Your task to perform on an android device: set default search engine in the chrome app Image 0: 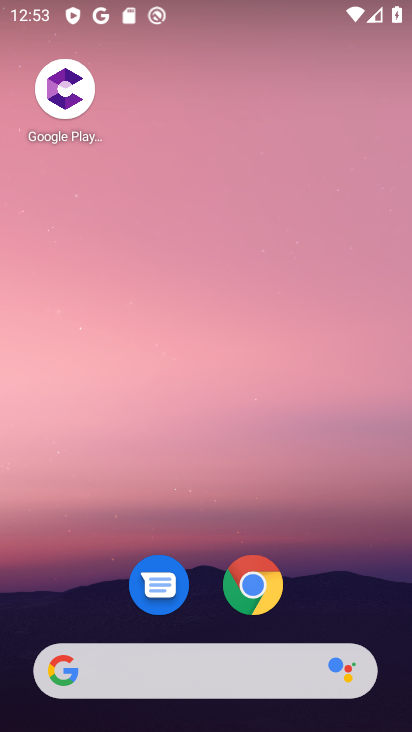
Step 0: click (254, 594)
Your task to perform on an android device: set default search engine in the chrome app Image 1: 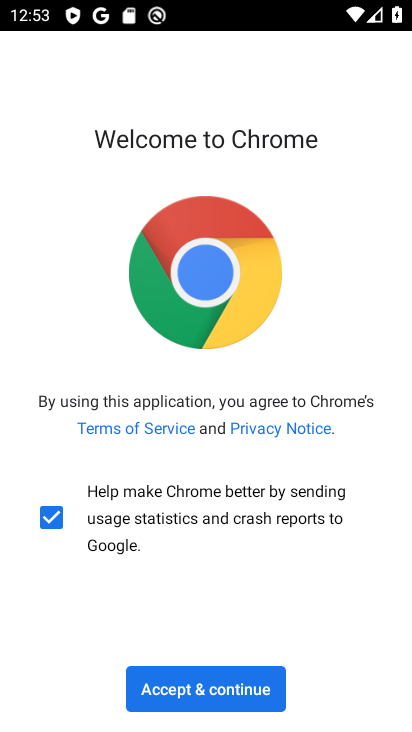
Step 1: click (181, 689)
Your task to perform on an android device: set default search engine in the chrome app Image 2: 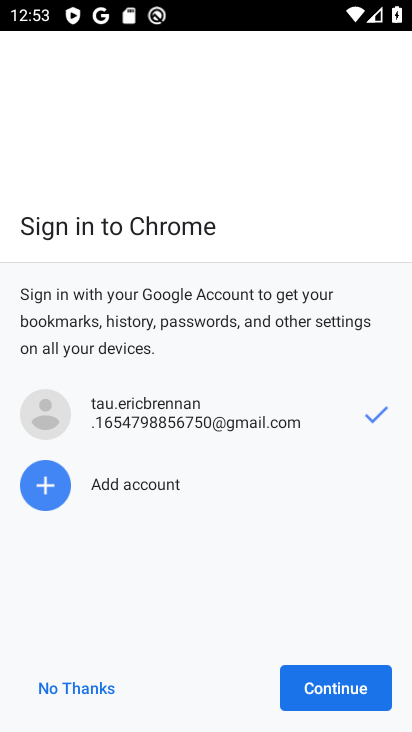
Step 2: click (310, 690)
Your task to perform on an android device: set default search engine in the chrome app Image 3: 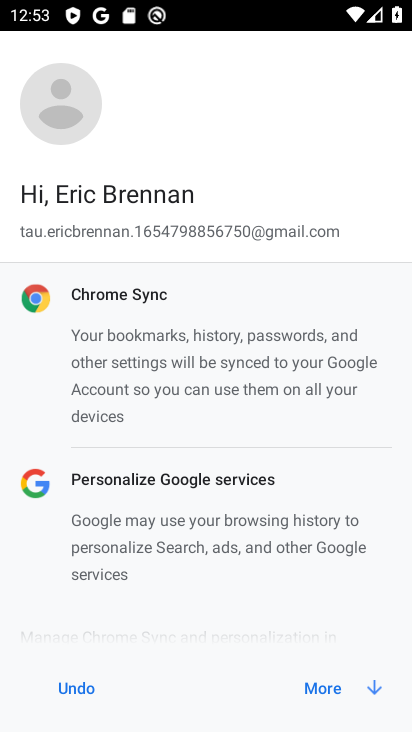
Step 3: click (315, 686)
Your task to perform on an android device: set default search engine in the chrome app Image 4: 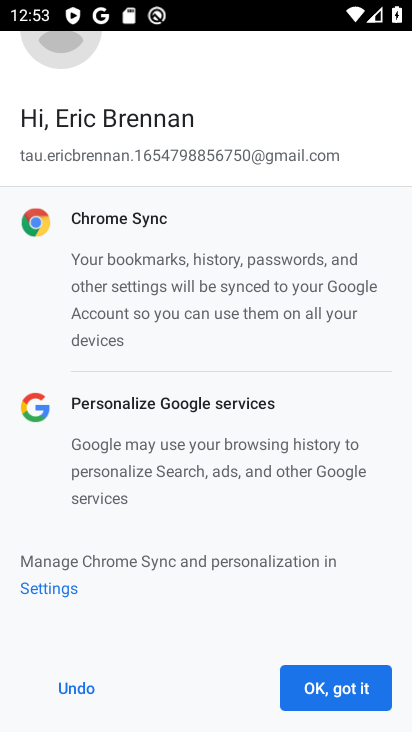
Step 4: click (343, 690)
Your task to perform on an android device: set default search engine in the chrome app Image 5: 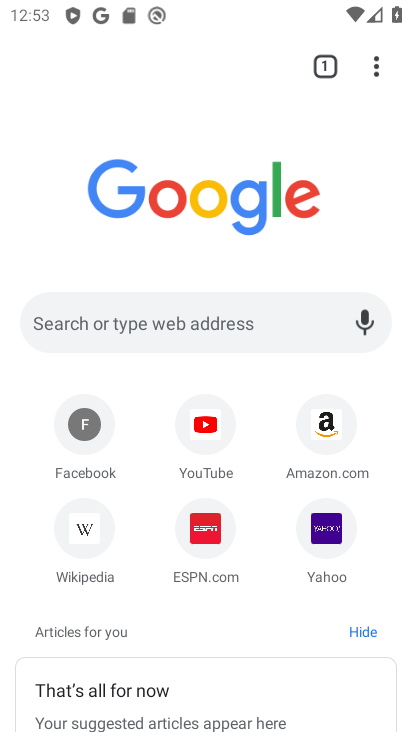
Step 5: drag from (371, 64) to (195, 569)
Your task to perform on an android device: set default search engine in the chrome app Image 6: 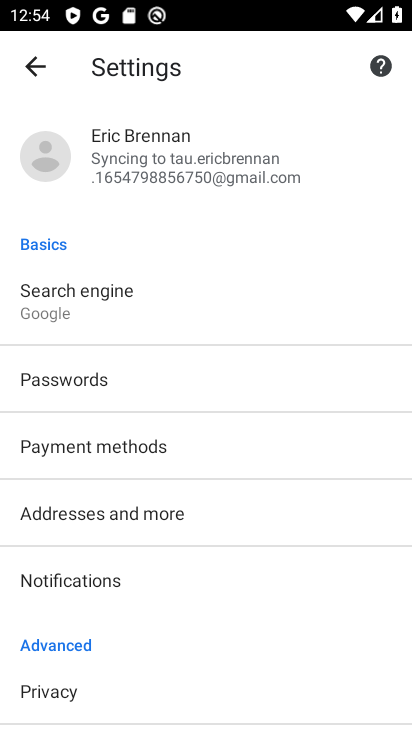
Step 6: click (93, 308)
Your task to perform on an android device: set default search engine in the chrome app Image 7: 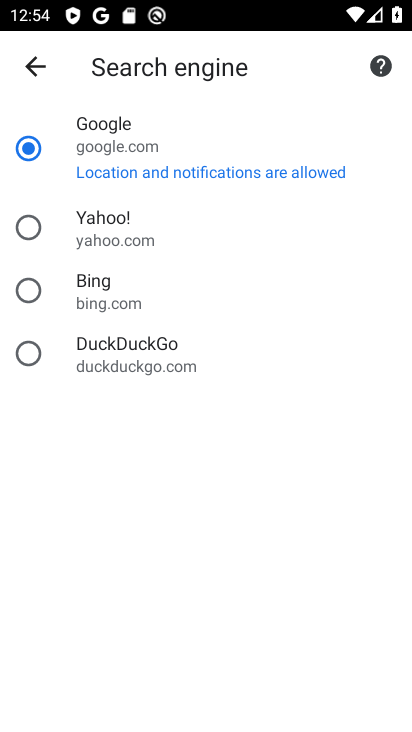
Step 7: click (28, 235)
Your task to perform on an android device: set default search engine in the chrome app Image 8: 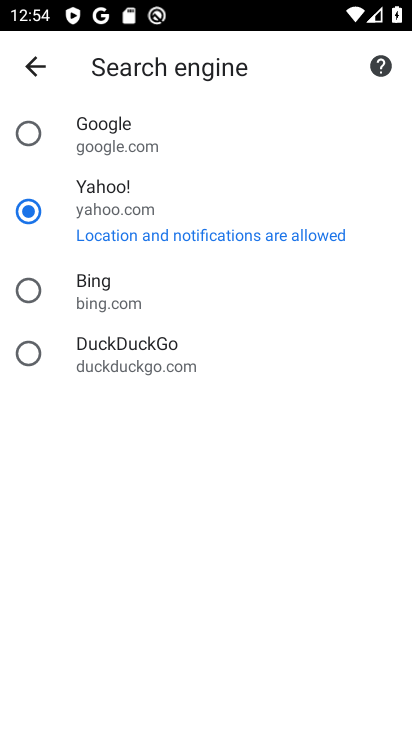
Step 8: task complete